Your task to perform on an android device: star an email in the gmail app Image 0: 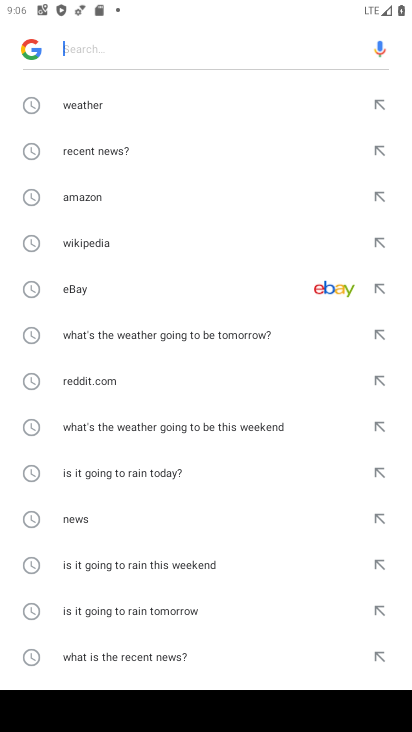
Step 0: press home button
Your task to perform on an android device: star an email in the gmail app Image 1: 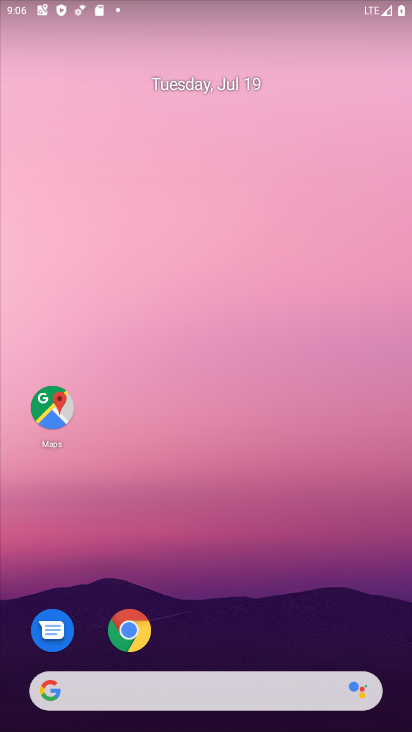
Step 1: drag from (188, 551) to (180, 18)
Your task to perform on an android device: star an email in the gmail app Image 2: 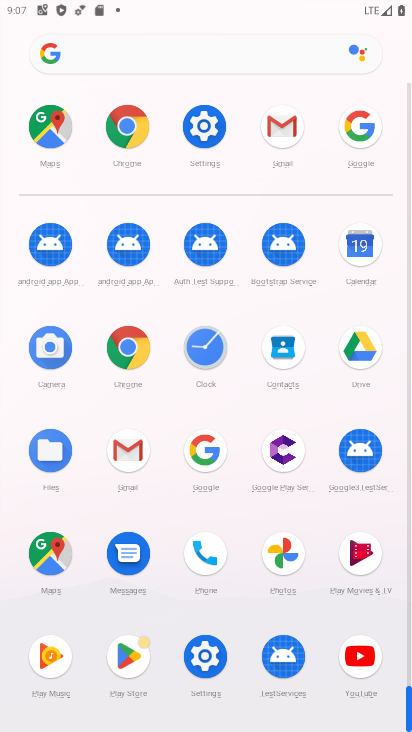
Step 2: click (132, 458)
Your task to perform on an android device: star an email in the gmail app Image 3: 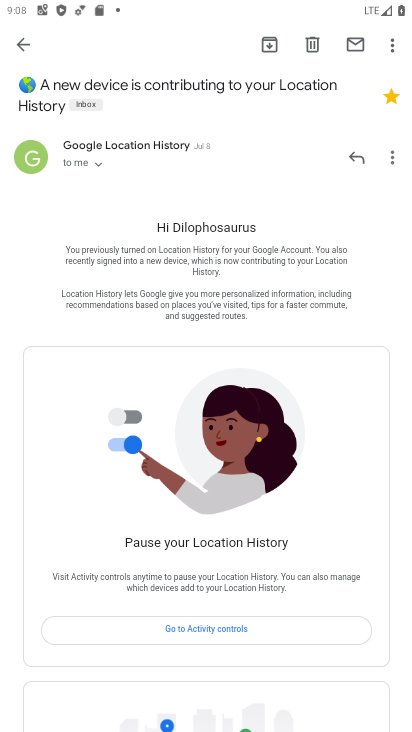
Step 3: task complete